Your task to perform on an android device: Clear the shopping cart on ebay.com. Search for "bose quietcomfort 35" on ebay.com, select the first entry, add it to the cart, then select checkout. Image 0: 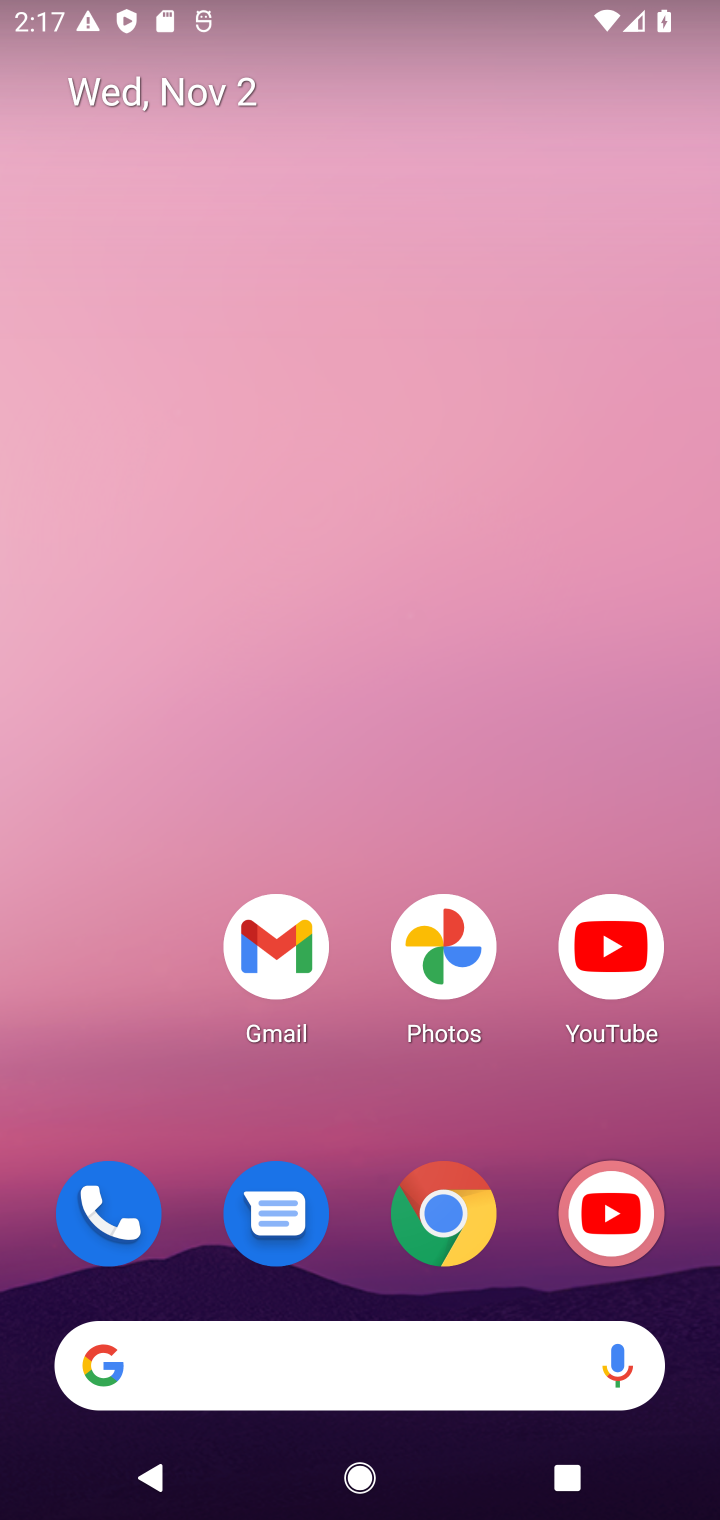
Step 0: click (450, 1227)
Your task to perform on an android device: Clear the shopping cart on ebay.com. Search for "bose quietcomfort 35" on ebay.com, select the first entry, add it to the cart, then select checkout. Image 1: 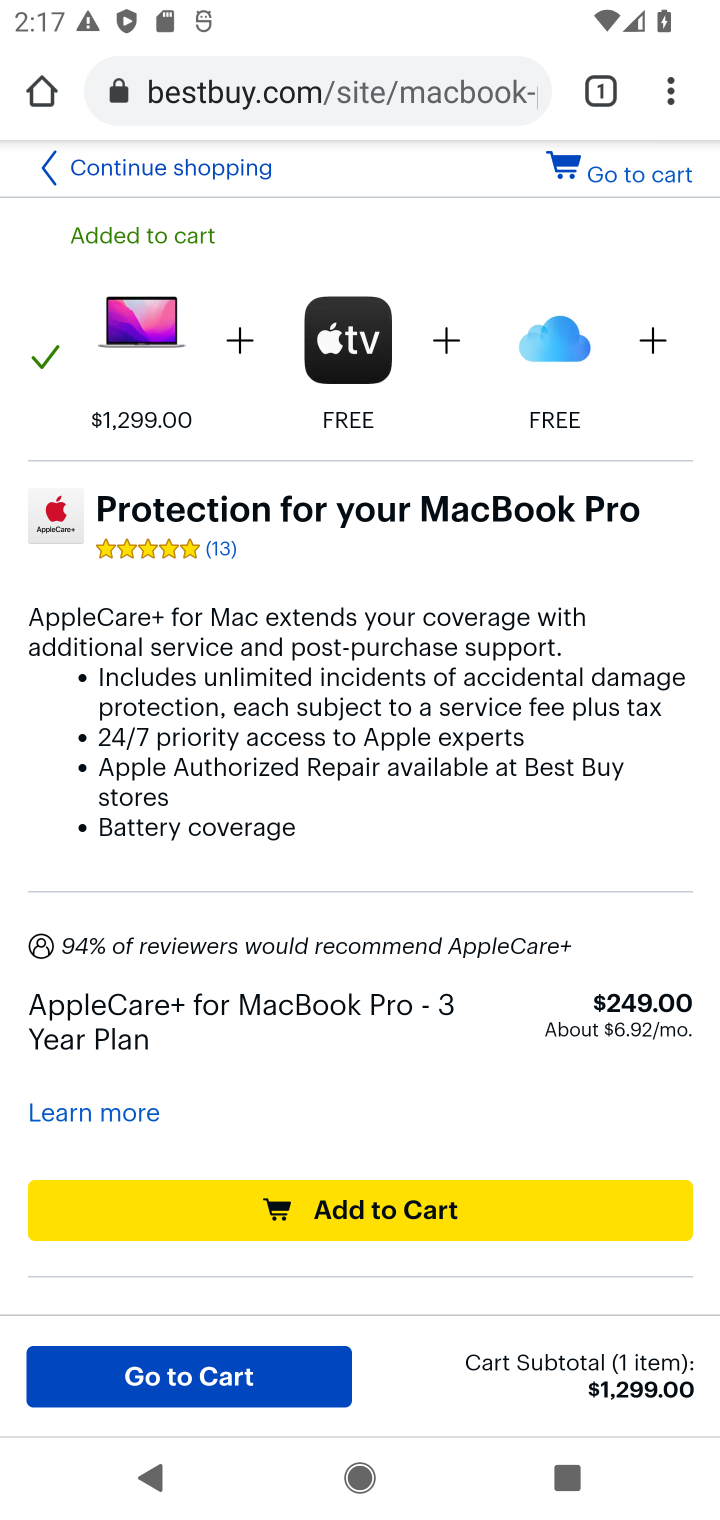
Step 1: click (319, 84)
Your task to perform on an android device: Clear the shopping cart on ebay.com. Search for "bose quietcomfort 35" on ebay.com, select the first entry, add it to the cart, then select checkout. Image 2: 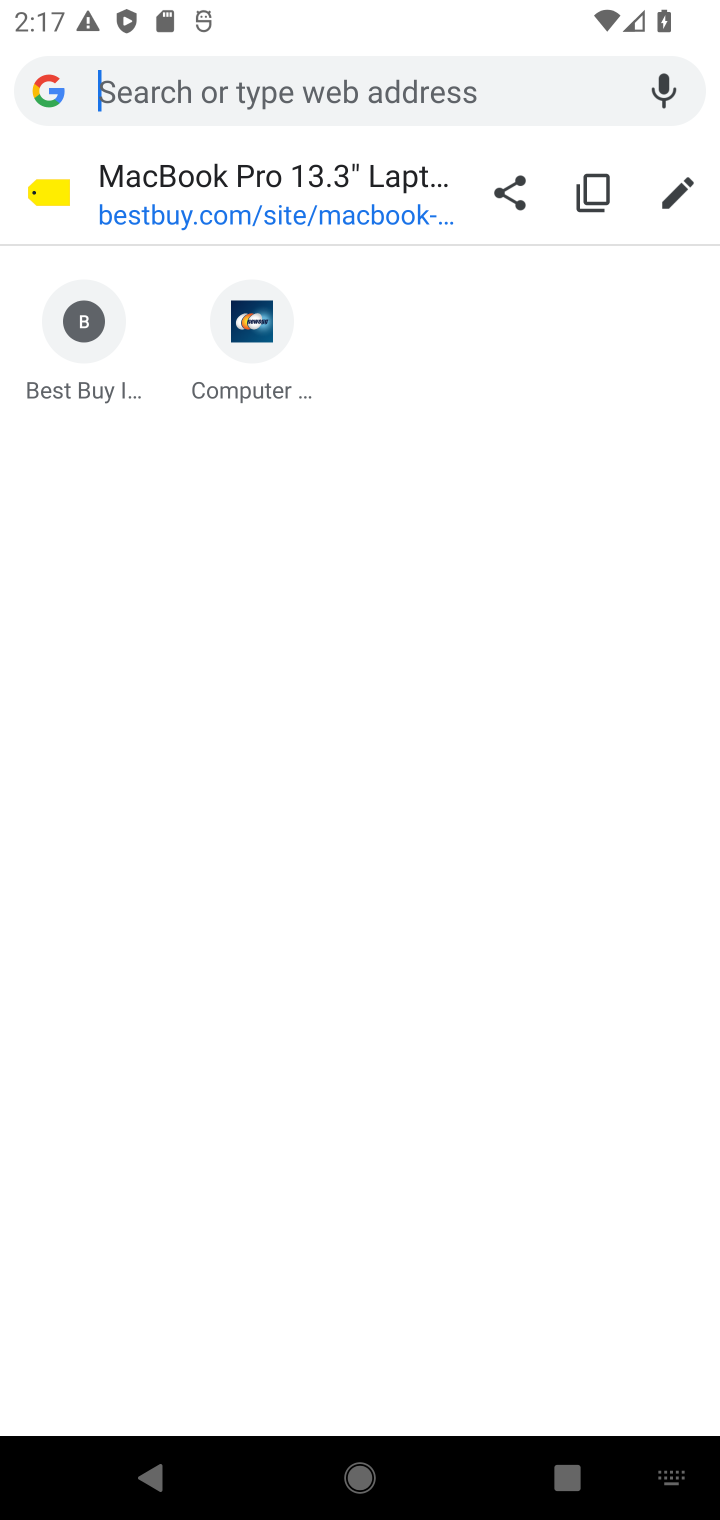
Step 2: click (298, 101)
Your task to perform on an android device: Clear the shopping cart on ebay.com. Search for "bose quietcomfort 35" on ebay.com, select the first entry, add it to the cart, then select checkout. Image 3: 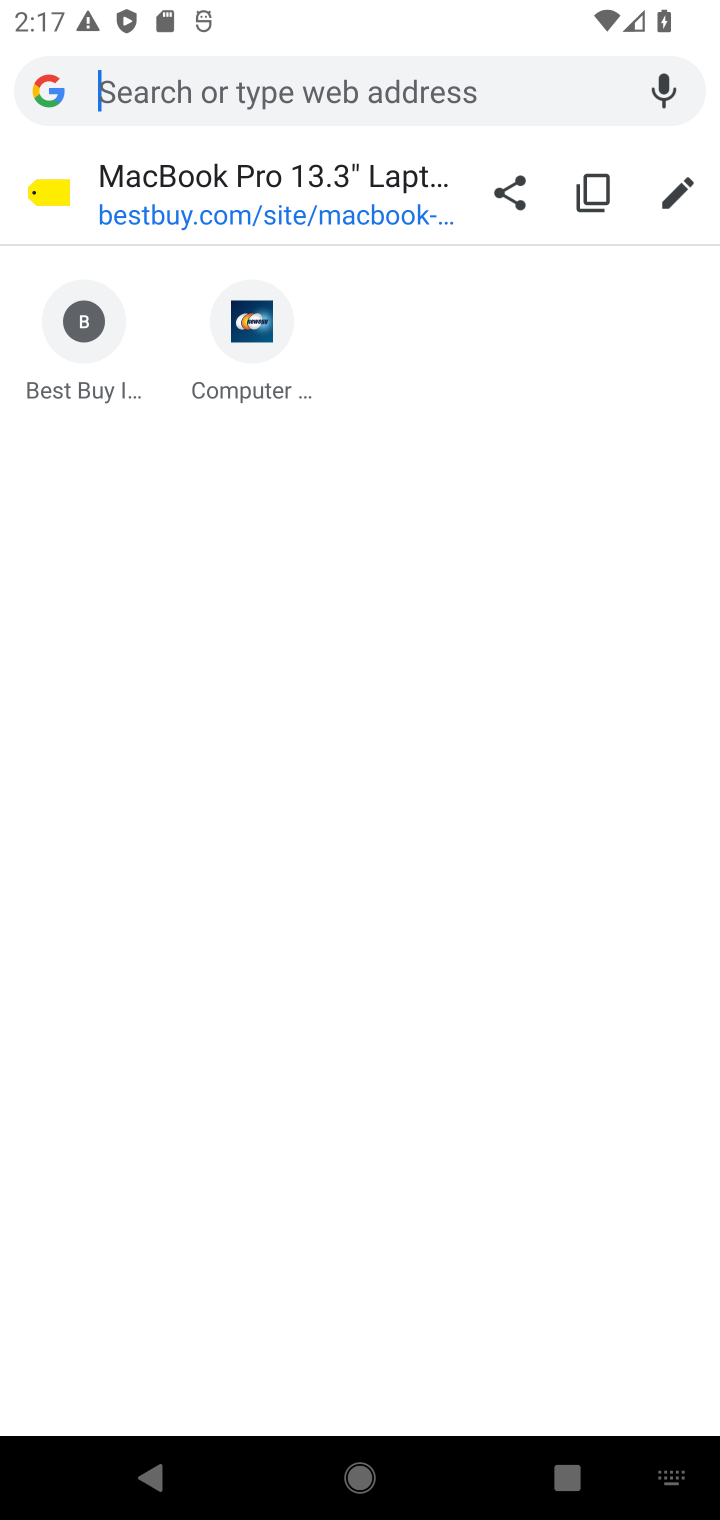
Step 3: type "ebat.com"
Your task to perform on an android device: Clear the shopping cart on ebay.com. Search for "bose quietcomfort 35" on ebay.com, select the first entry, add it to the cart, then select checkout. Image 4: 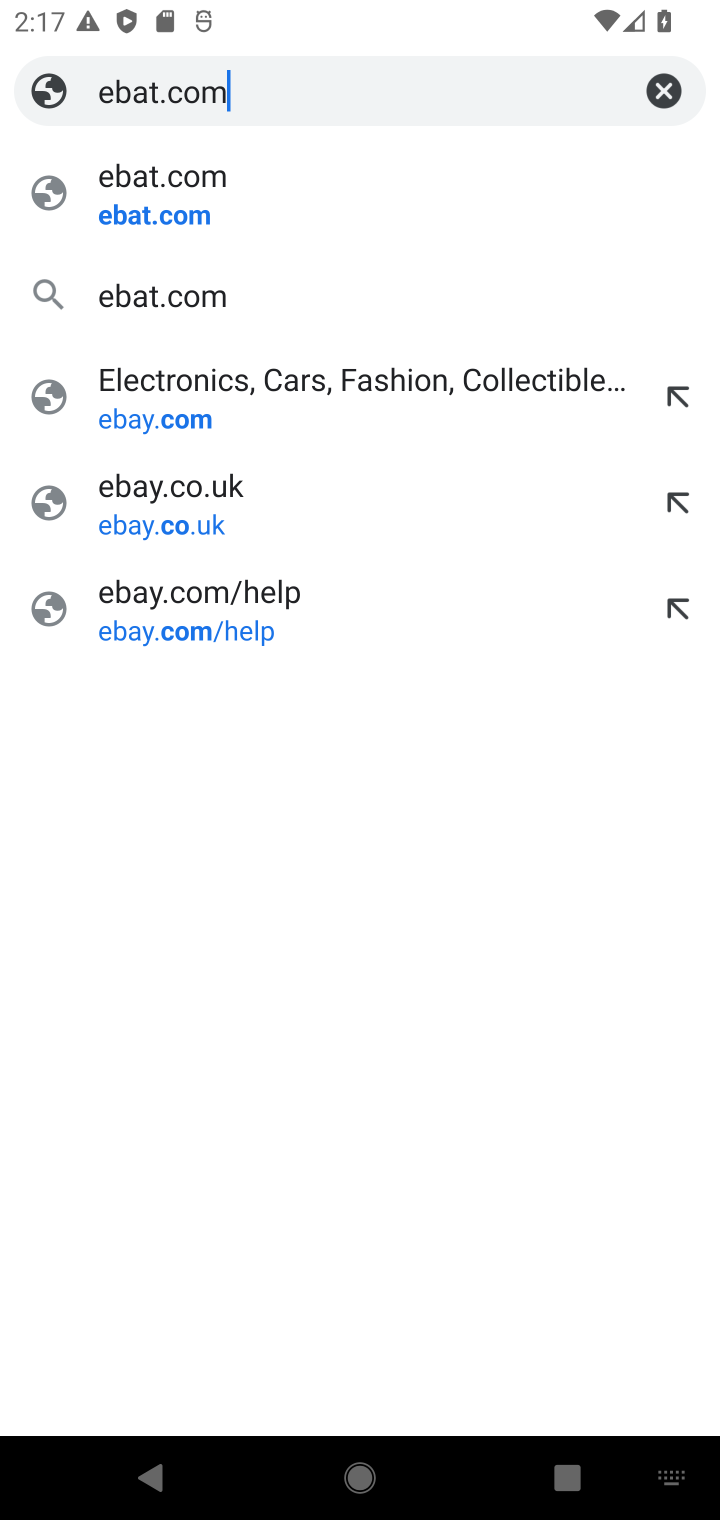
Step 4: press enter
Your task to perform on an android device: Clear the shopping cart on ebay.com. Search for "bose quietcomfort 35" on ebay.com, select the first entry, add it to the cart, then select checkout. Image 5: 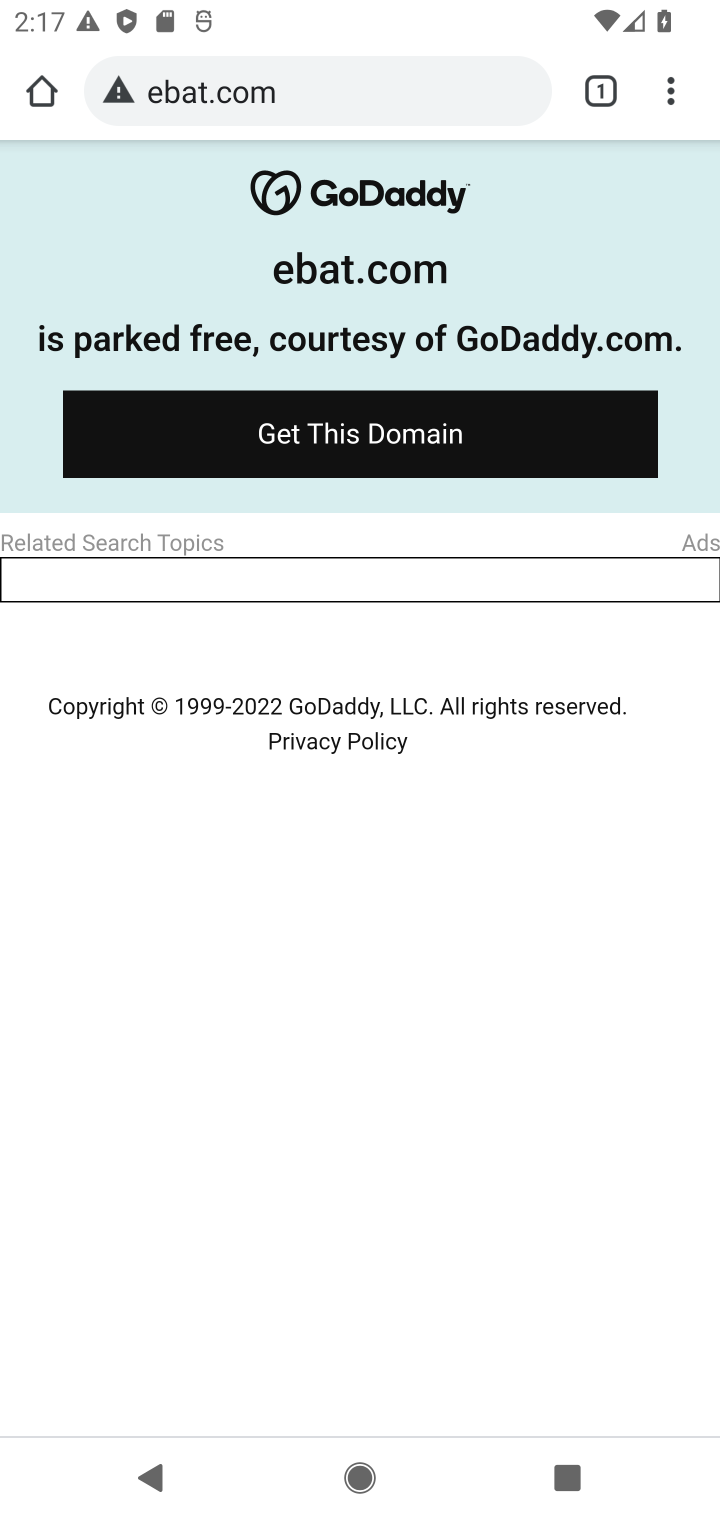
Step 5: click (268, 105)
Your task to perform on an android device: Clear the shopping cart on ebay.com. Search for "bose quietcomfort 35" on ebay.com, select the first entry, add it to the cart, then select checkout. Image 6: 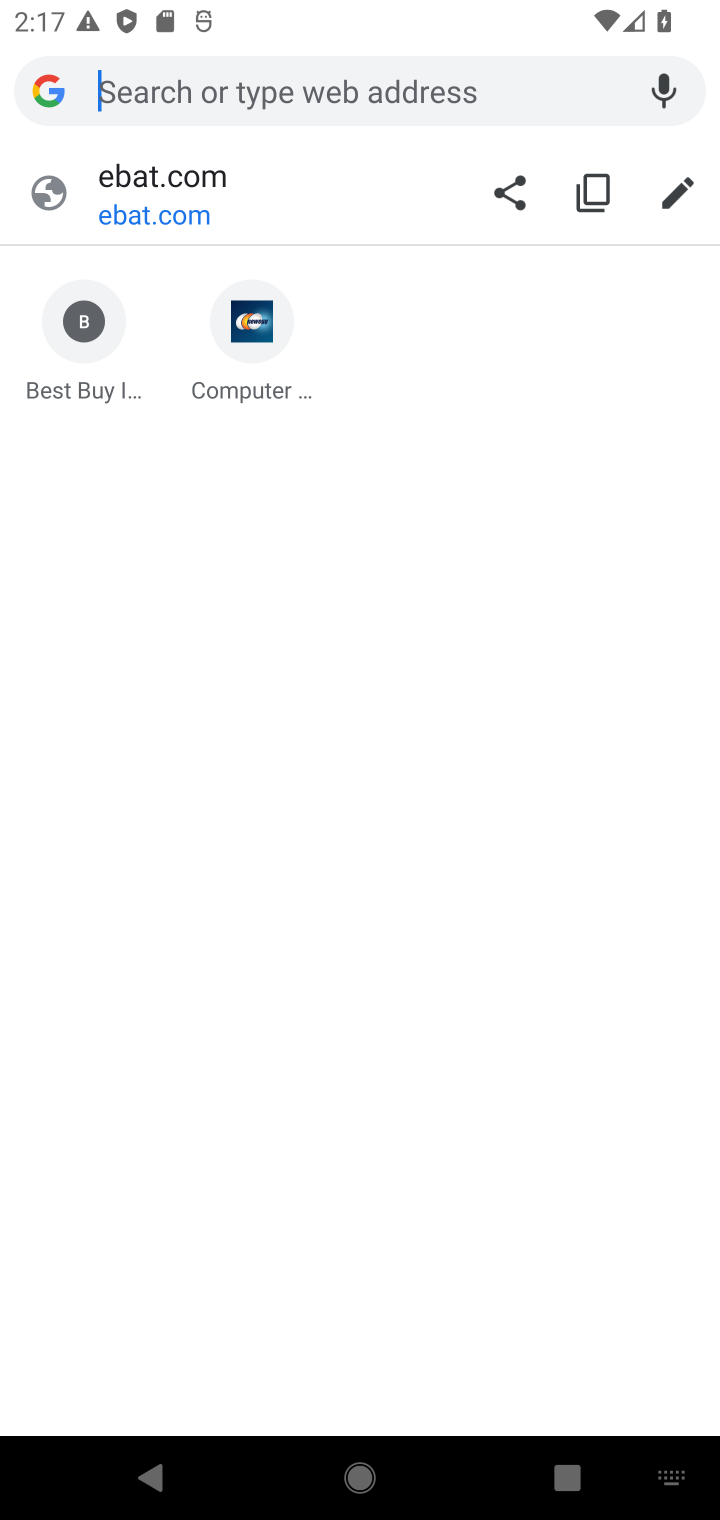
Step 6: type "ebay.com"
Your task to perform on an android device: Clear the shopping cart on ebay.com. Search for "bose quietcomfort 35" on ebay.com, select the first entry, add it to the cart, then select checkout. Image 7: 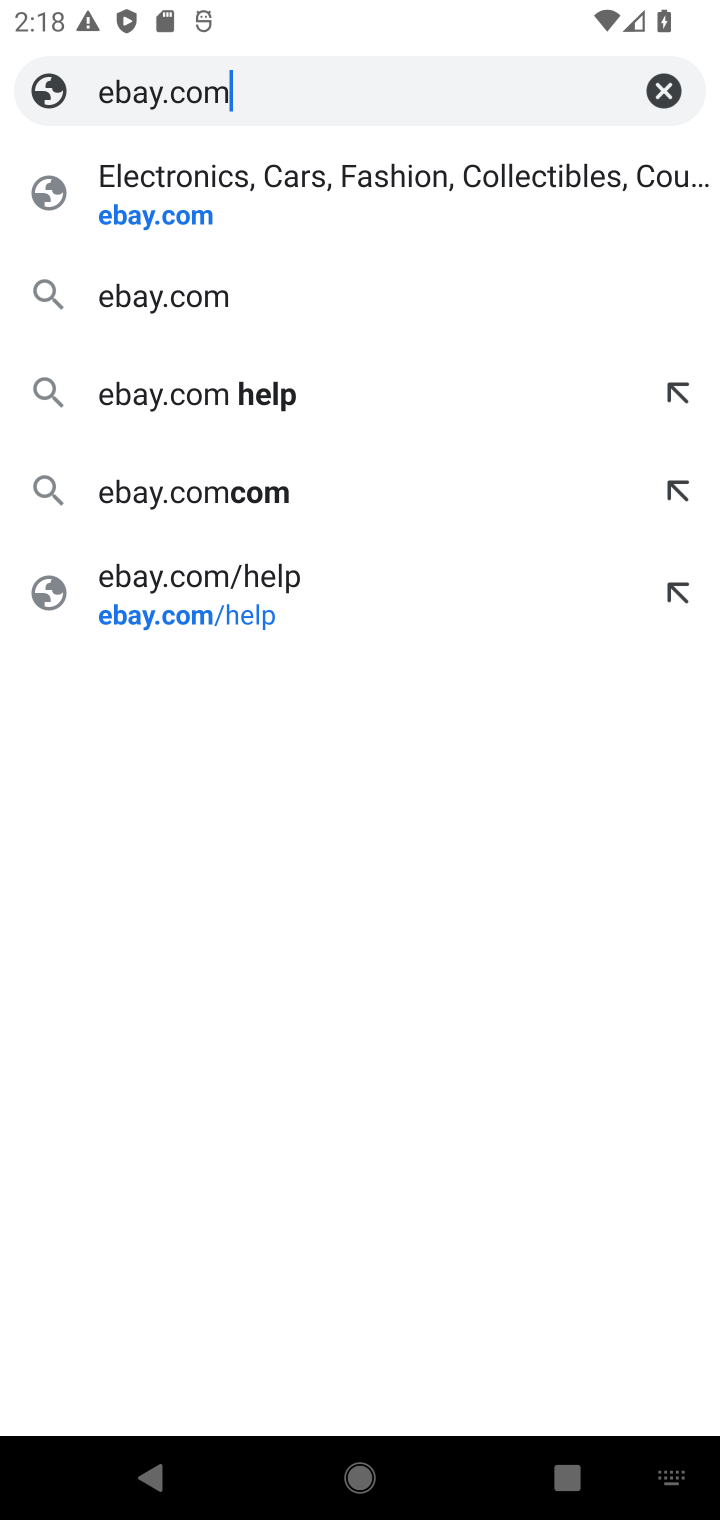
Step 7: click (473, 204)
Your task to perform on an android device: Clear the shopping cart on ebay.com. Search for "bose quietcomfort 35" on ebay.com, select the first entry, add it to the cart, then select checkout. Image 8: 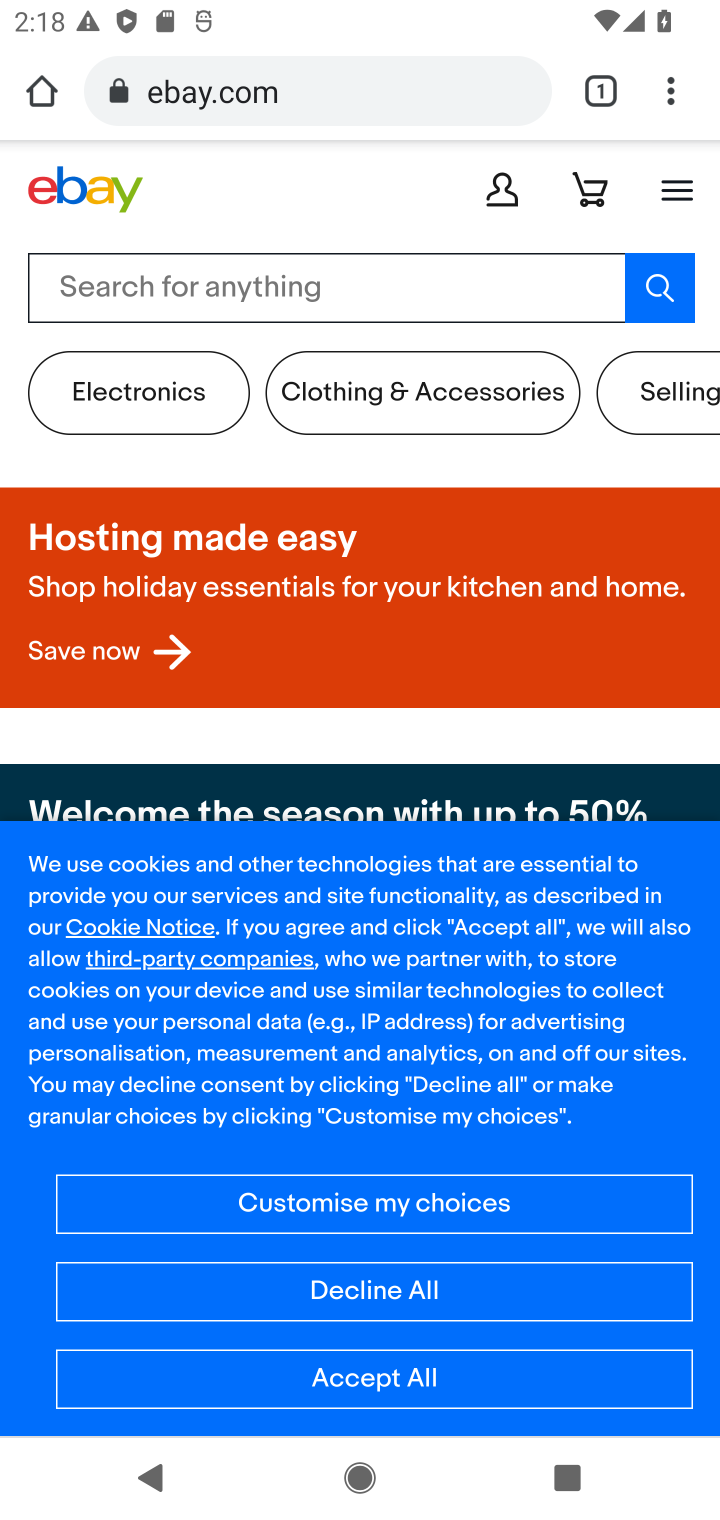
Step 8: click (583, 201)
Your task to perform on an android device: Clear the shopping cart on ebay.com. Search for "bose quietcomfort 35" on ebay.com, select the first entry, add it to the cart, then select checkout. Image 9: 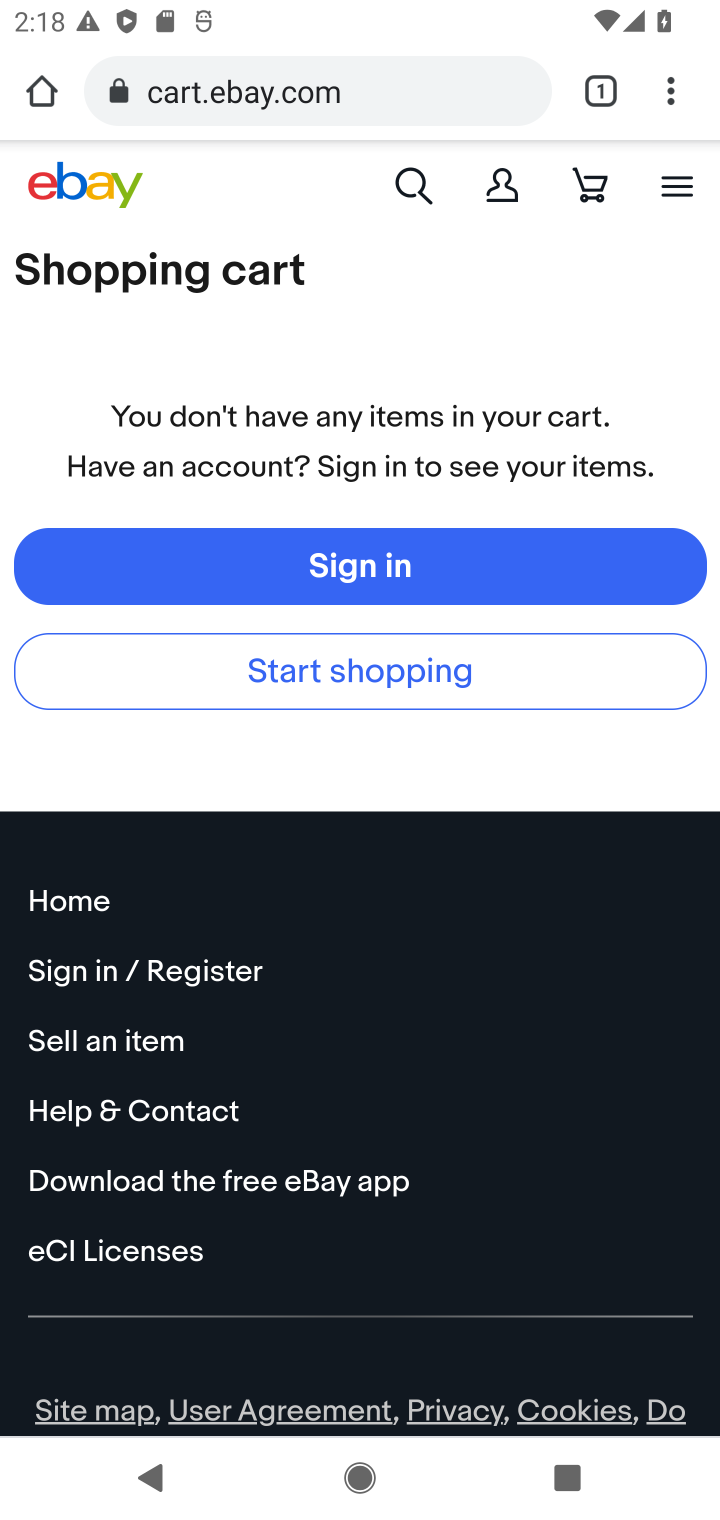
Step 9: click (354, 685)
Your task to perform on an android device: Clear the shopping cart on ebay.com. Search for "bose quietcomfort 35" on ebay.com, select the first entry, add it to the cart, then select checkout. Image 10: 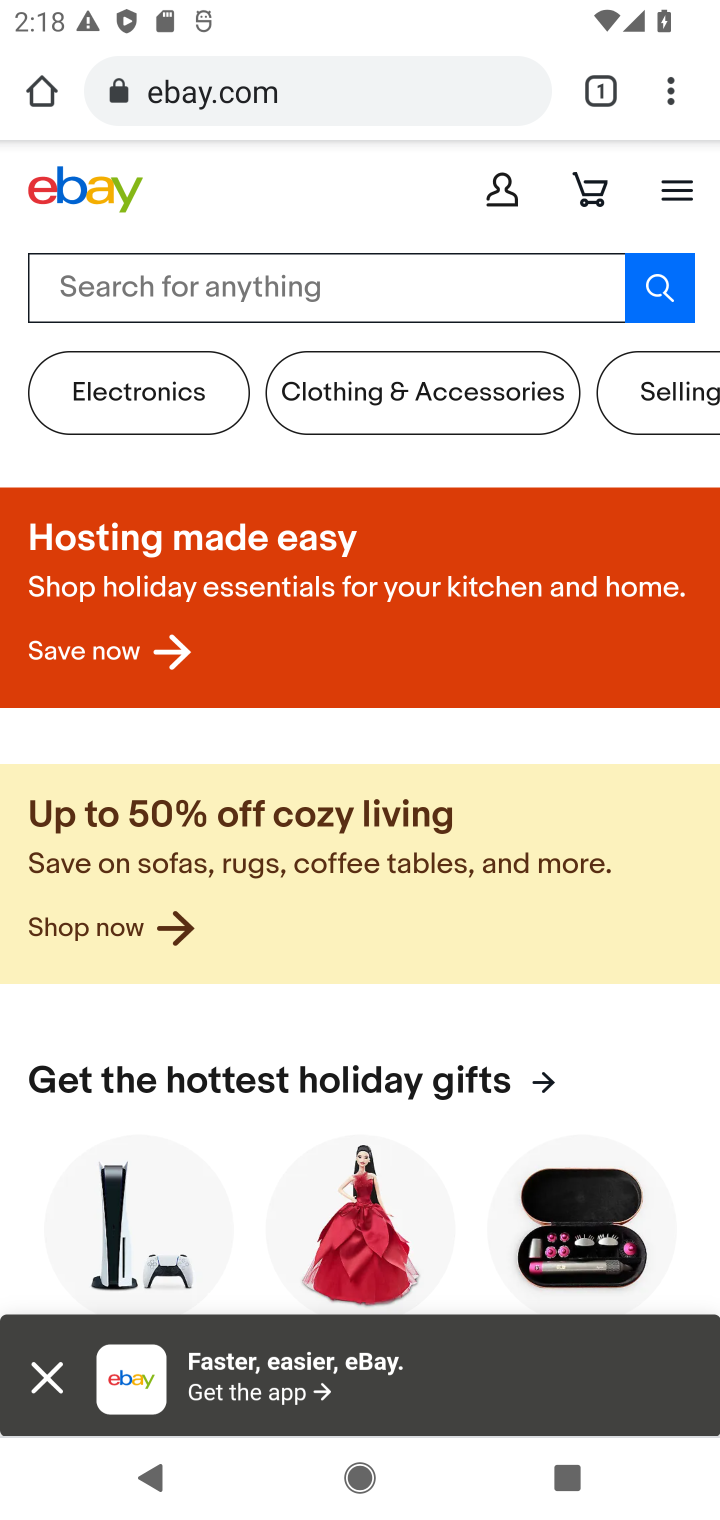
Step 10: click (397, 287)
Your task to perform on an android device: Clear the shopping cart on ebay.com. Search for "bose quietcomfort 35" on ebay.com, select the first entry, add it to the cart, then select checkout. Image 11: 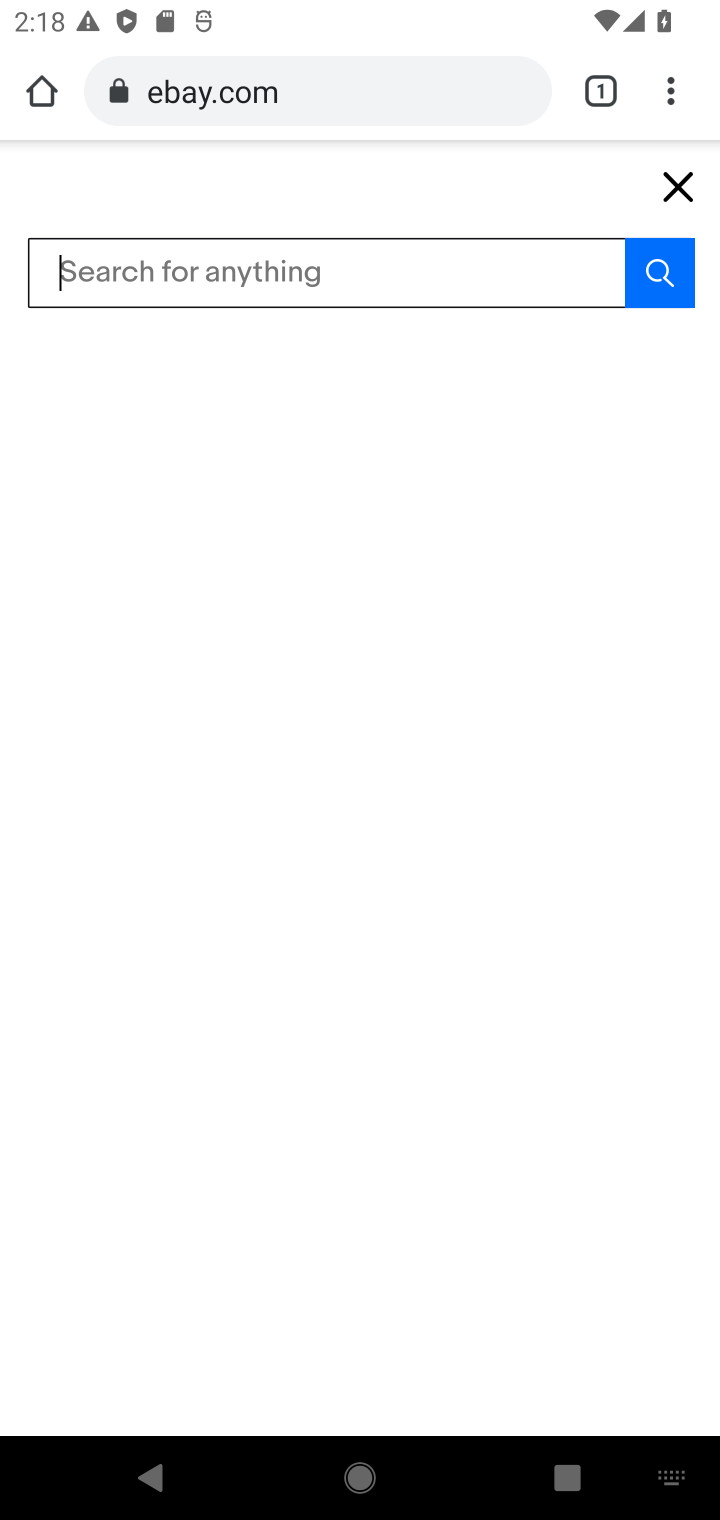
Step 11: type "bose quietcomfort 35"
Your task to perform on an android device: Clear the shopping cart on ebay.com. Search for "bose quietcomfort 35" on ebay.com, select the first entry, add it to the cart, then select checkout. Image 12: 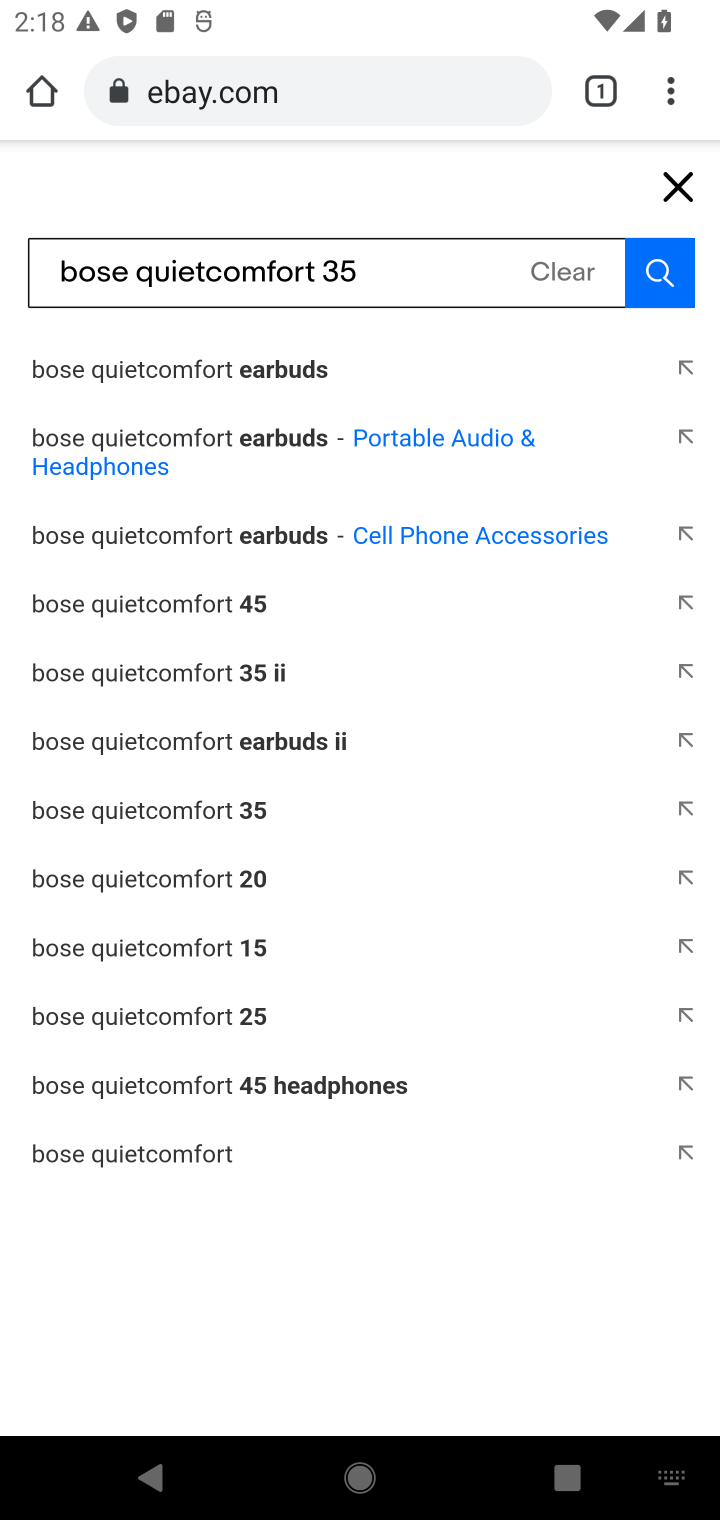
Step 12: click (661, 276)
Your task to perform on an android device: Clear the shopping cart on ebay.com. Search for "bose quietcomfort 35" on ebay.com, select the first entry, add it to the cart, then select checkout. Image 13: 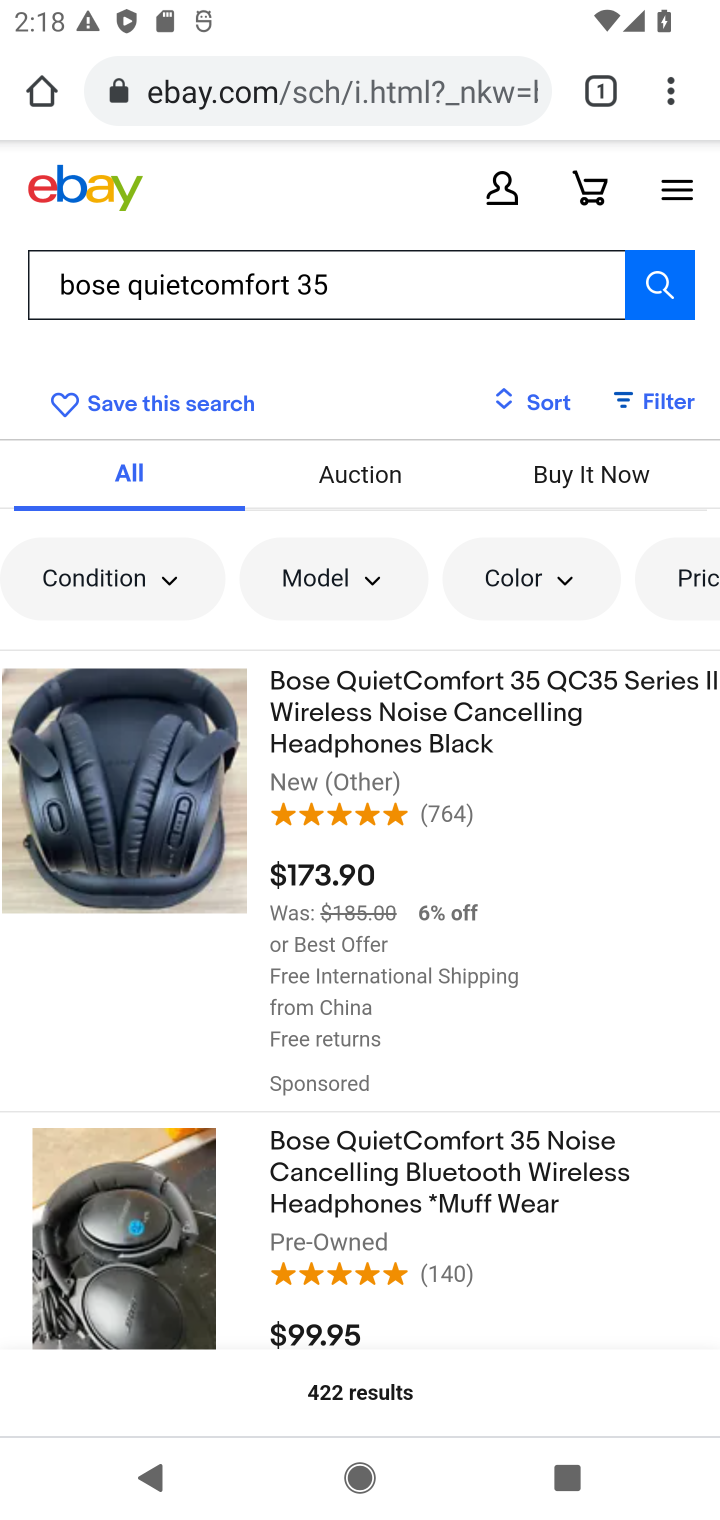
Step 13: click (187, 764)
Your task to perform on an android device: Clear the shopping cart on ebay.com. Search for "bose quietcomfort 35" on ebay.com, select the first entry, add it to the cart, then select checkout. Image 14: 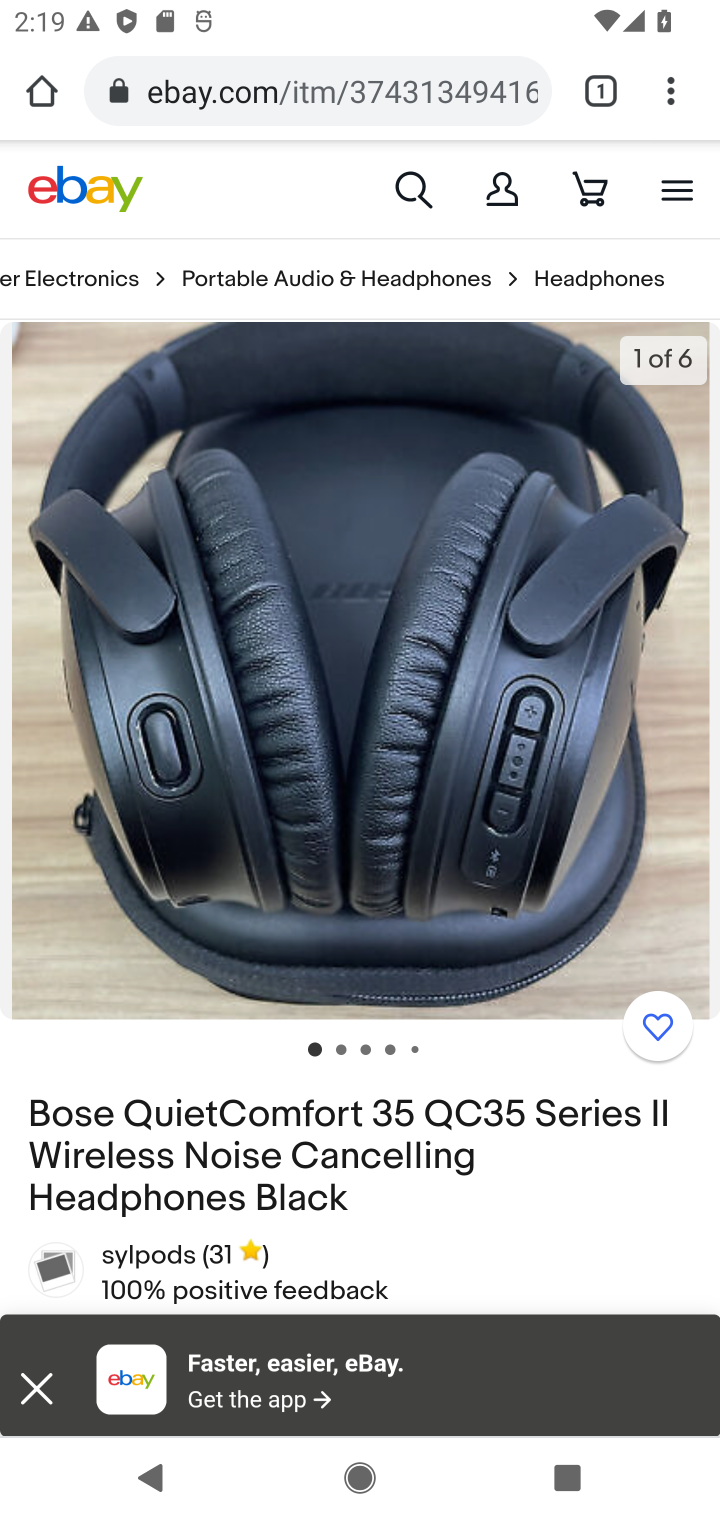
Step 14: drag from (569, 1245) to (433, 432)
Your task to perform on an android device: Clear the shopping cart on ebay.com. Search for "bose quietcomfort 35" on ebay.com, select the first entry, add it to the cart, then select checkout. Image 15: 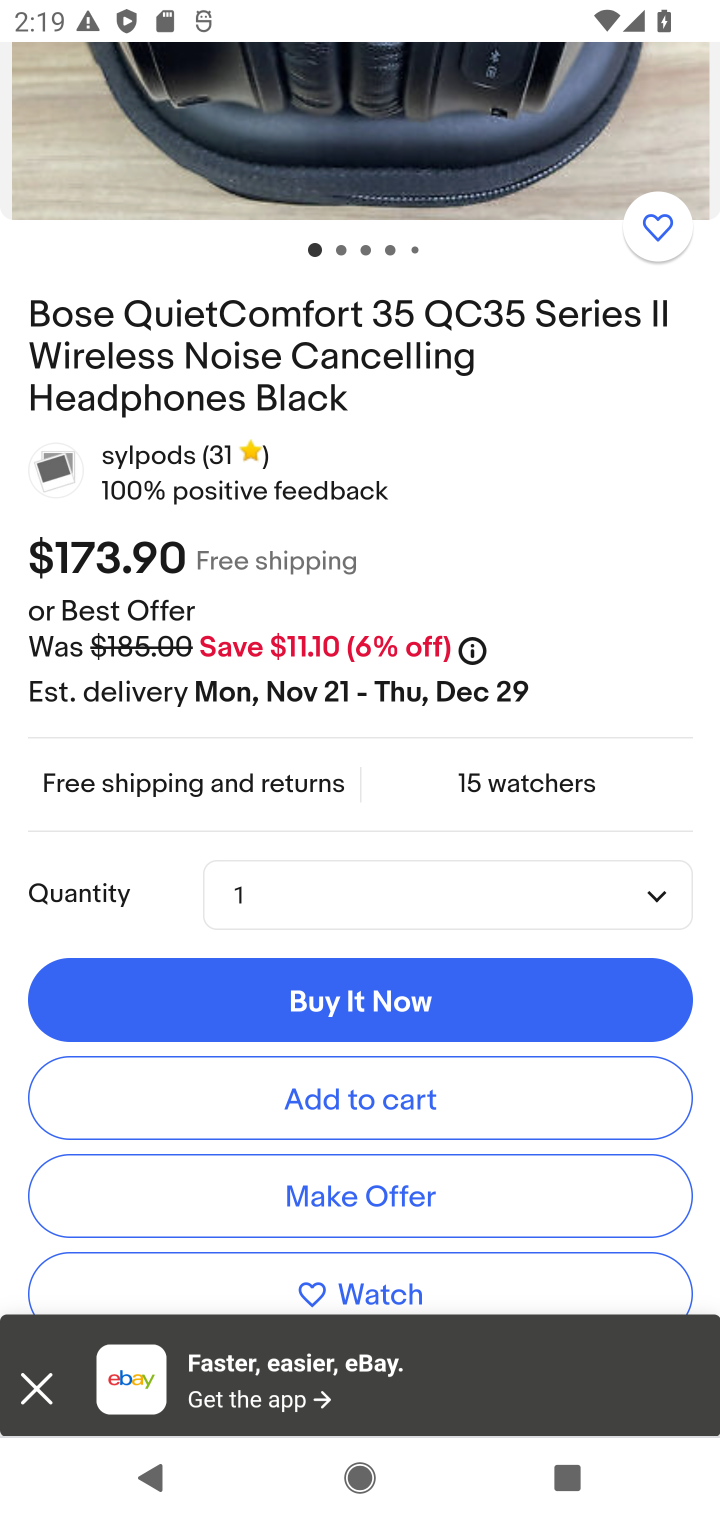
Step 15: click (399, 1097)
Your task to perform on an android device: Clear the shopping cart on ebay.com. Search for "bose quietcomfort 35" on ebay.com, select the first entry, add it to the cart, then select checkout. Image 16: 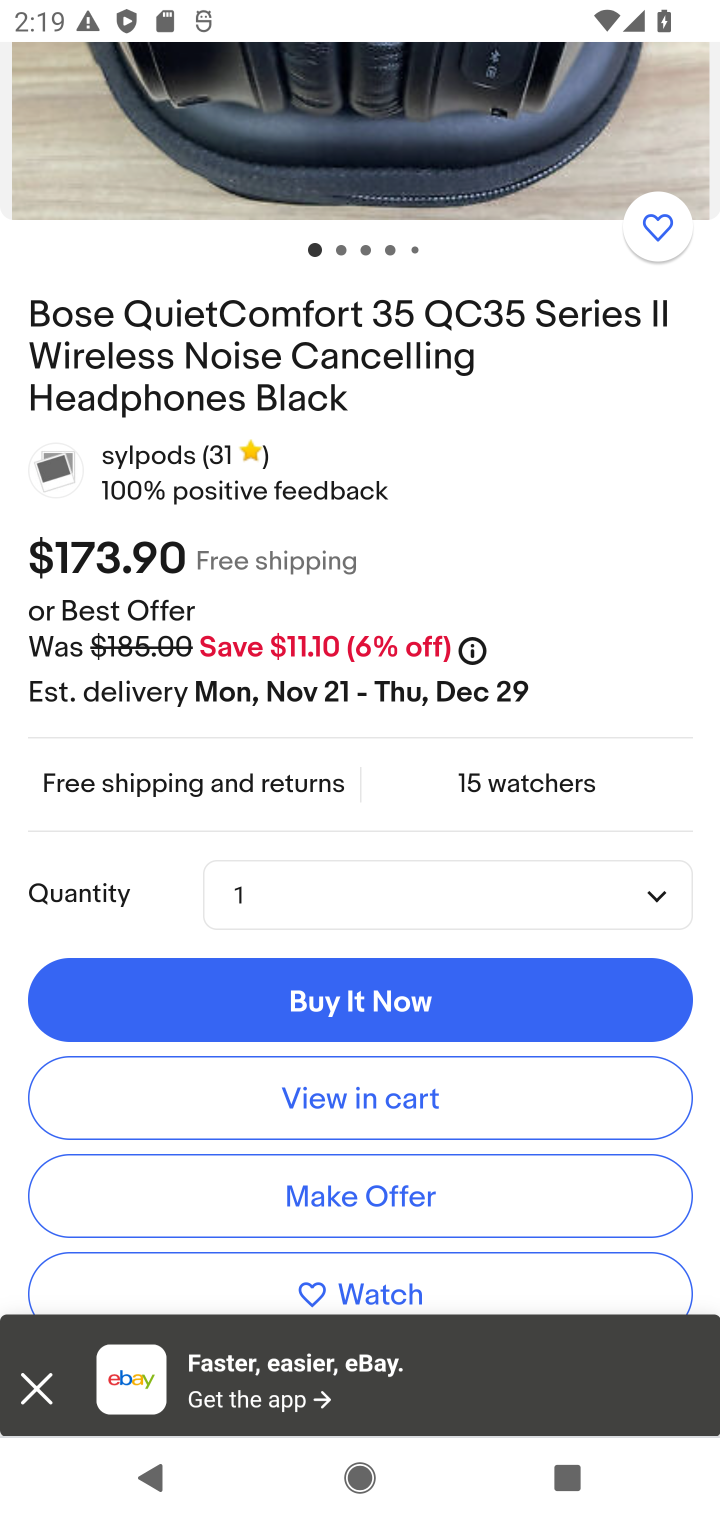
Step 16: click (399, 1097)
Your task to perform on an android device: Clear the shopping cart on ebay.com. Search for "bose quietcomfort 35" on ebay.com, select the first entry, add it to the cart, then select checkout. Image 17: 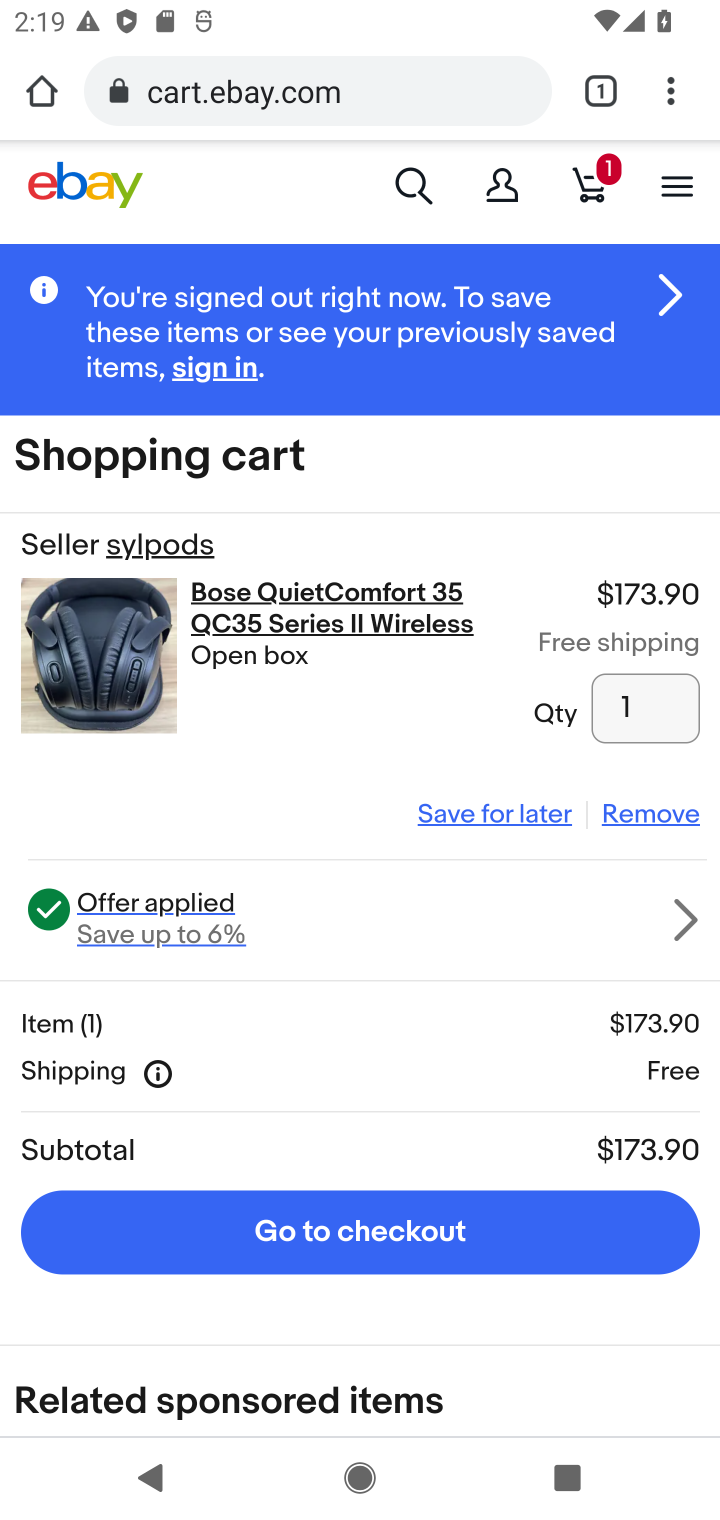
Step 17: click (324, 1236)
Your task to perform on an android device: Clear the shopping cart on ebay.com. Search for "bose quietcomfort 35" on ebay.com, select the first entry, add it to the cart, then select checkout. Image 18: 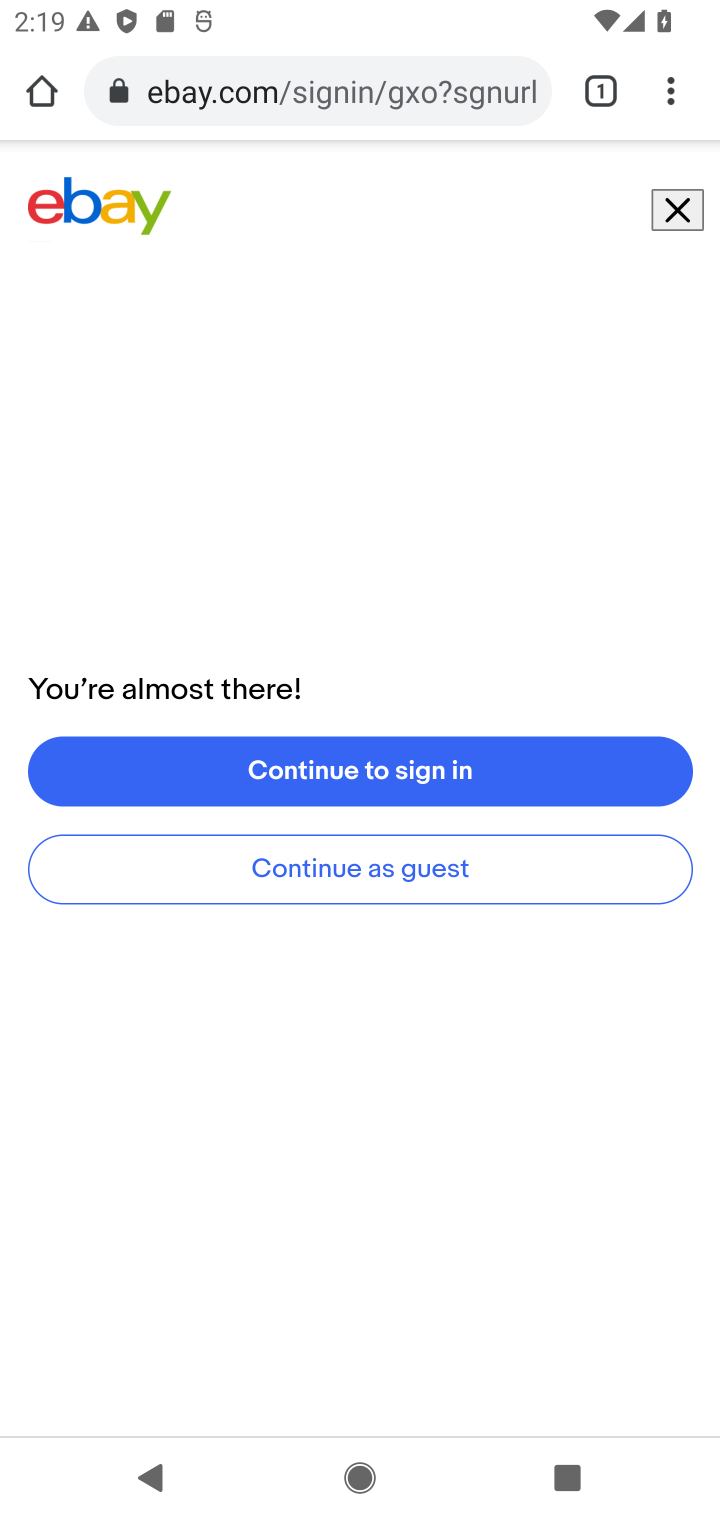
Step 18: task complete